Your task to perform on an android device: Open Wikipedia Image 0: 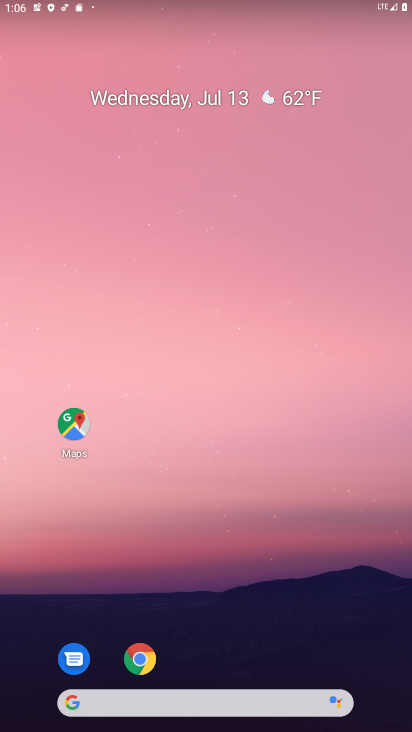
Step 0: drag from (212, 683) to (211, 56)
Your task to perform on an android device: Open Wikipedia Image 1: 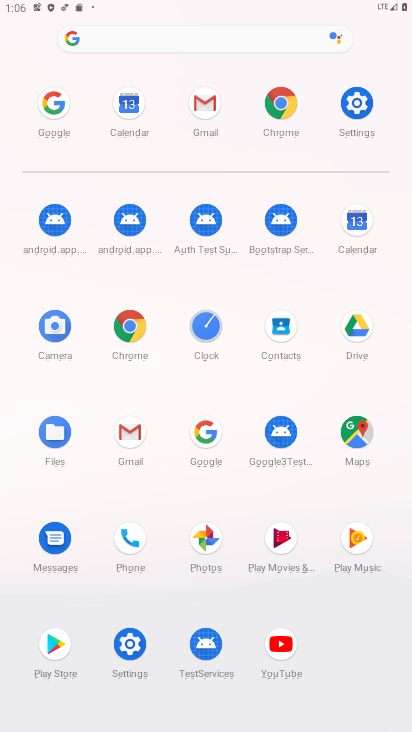
Step 1: click (281, 107)
Your task to perform on an android device: Open Wikipedia Image 2: 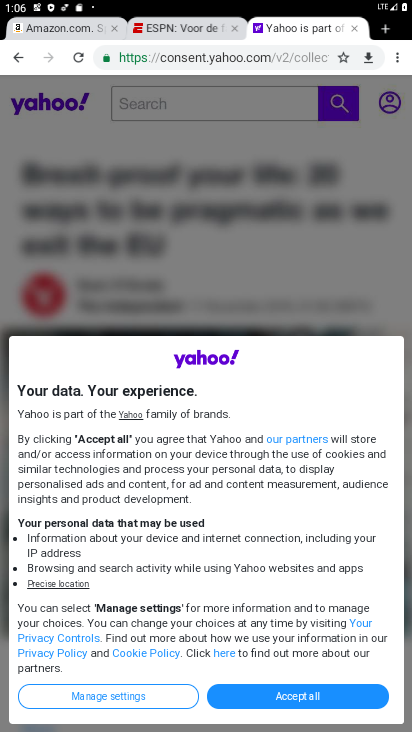
Step 2: click (397, 61)
Your task to perform on an android device: Open Wikipedia Image 3: 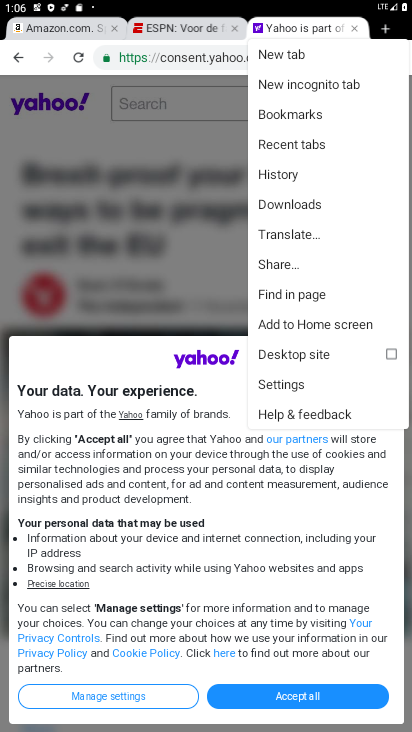
Step 3: click (297, 51)
Your task to perform on an android device: Open Wikipedia Image 4: 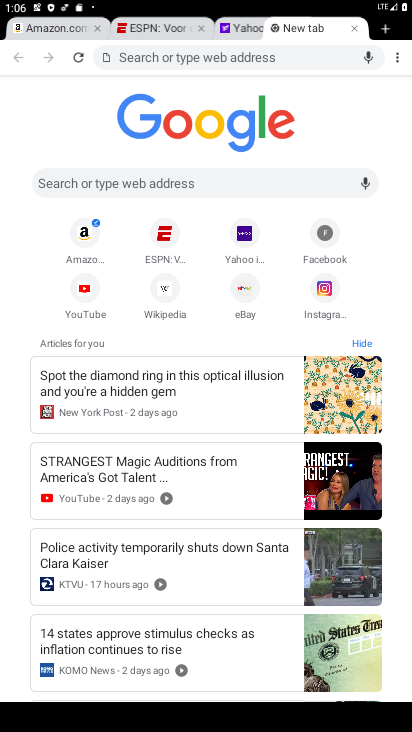
Step 4: click (164, 287)
Your task to perform on an android device: Open Wikipedia Image 5: 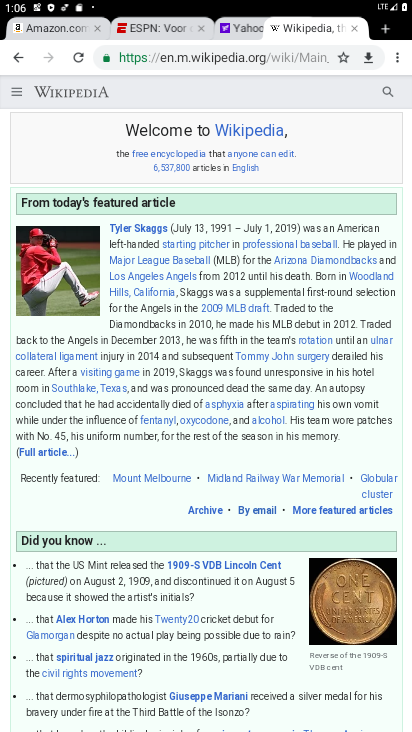
Step 5: task complete